Your task to perform on an android device: Show me the alarms in the clock app Image 0: 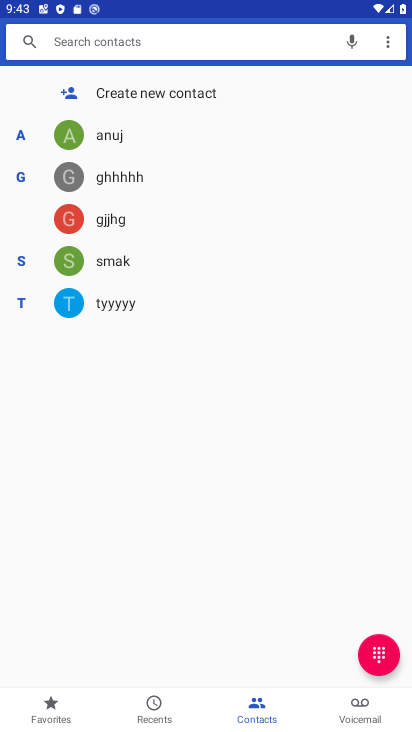
Step 0: press home button
Your task to perform on an android device: Show me the alarms in the clock app Image 1: 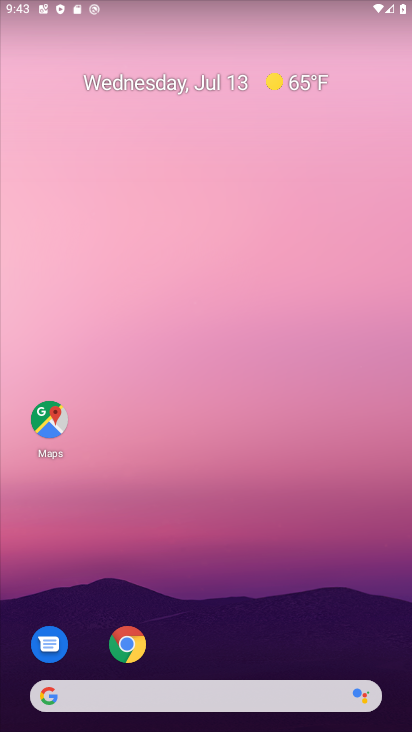
Step 1: drag from (245, 474) to (194, 96)
Your task to perform on an android device: Show me the alarms in the clock app Image 2: 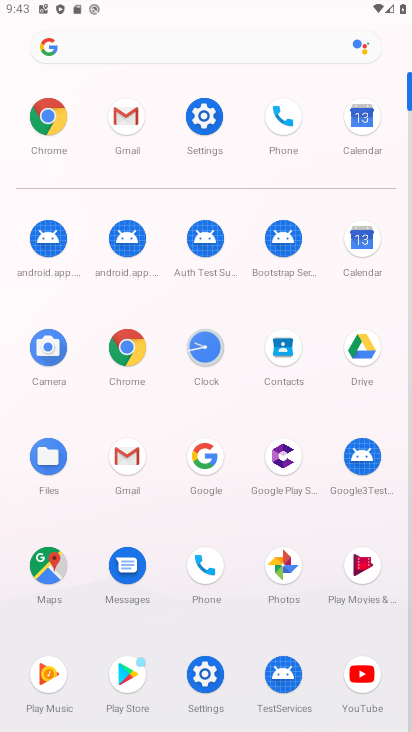
Step 2: click (204, 361)
Your task to perform on an android device: Show me the alarms in the clock app Image 3: 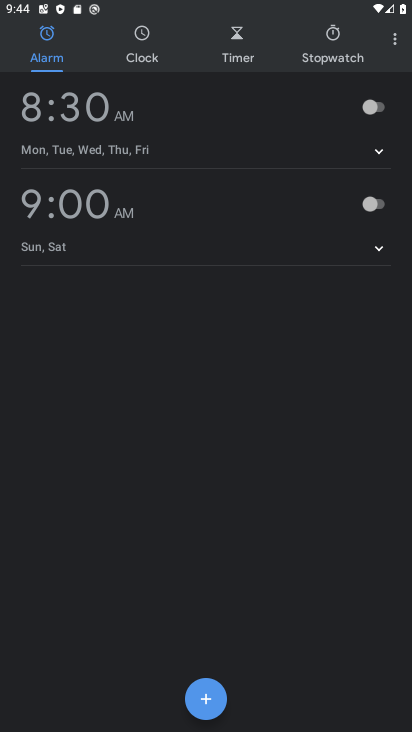
Step 3: task complete